Your task to perform on an android device: Go to eBay Image 0: 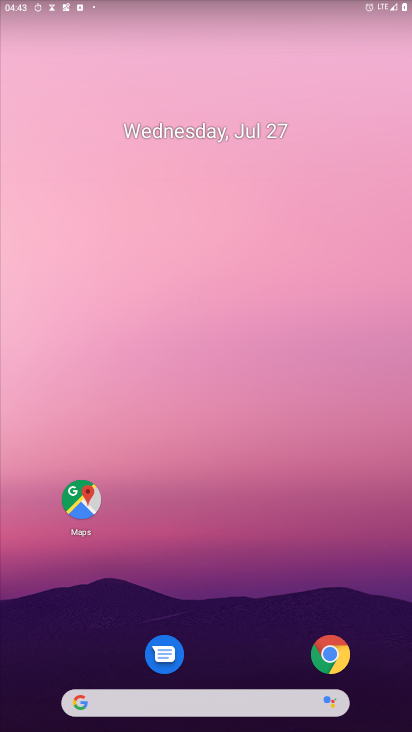
Step 0: drag from (176, 145) to (137, 0)
Your task to perform on an android device: Go to eBay Image 1: 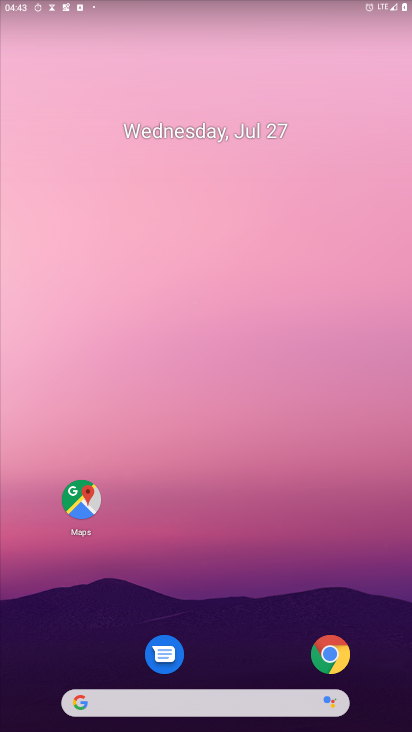
Step 1: drag from (191, 701) to (209, 87)
Your task to perform on an android device: Go to eBay Image 2: 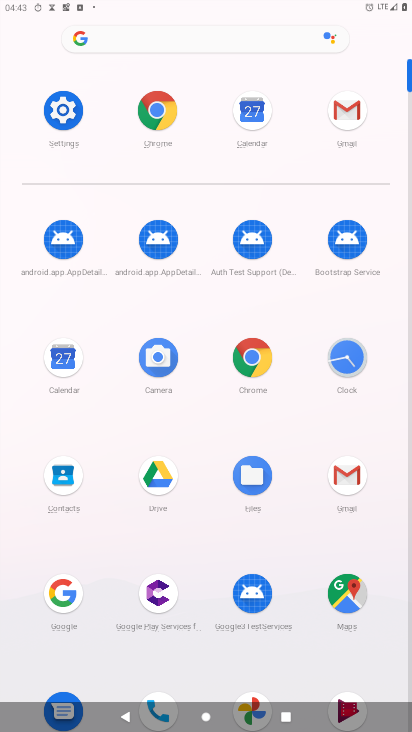
Step 2: click (255, 366)
Your task to perform on an android device: Go to eBay Image 3: 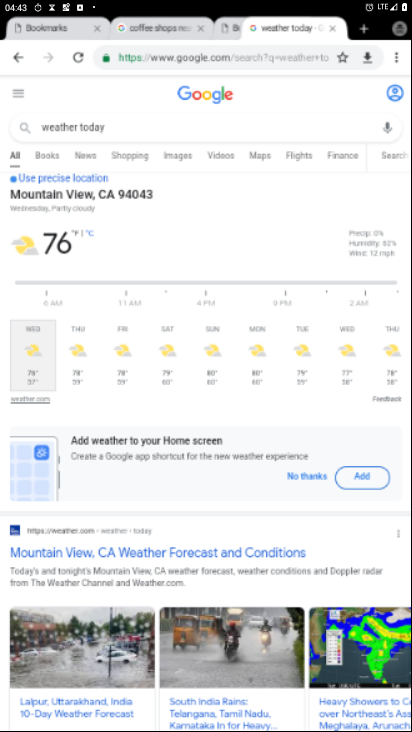
Step 3: click (179, 55)
Your task to perform on an android device: Go to eBay Image 4: 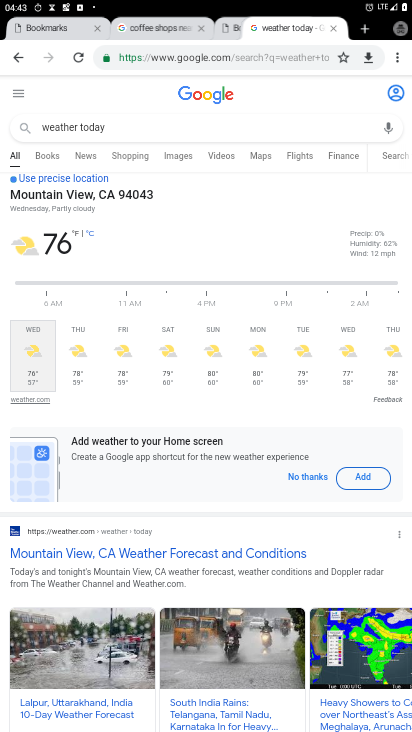
Step 4: click (179, 55)
Your task to perform on an android device: Go to eBay Image 5: 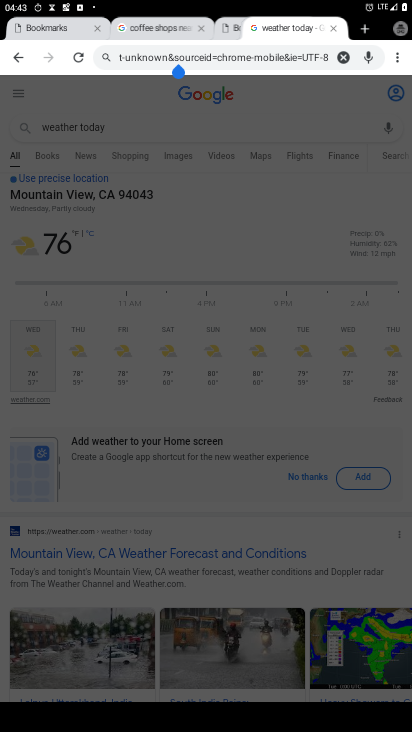
Step 5: type "ebay"
Your task to perform on an android device: Go to eBay Image 6: 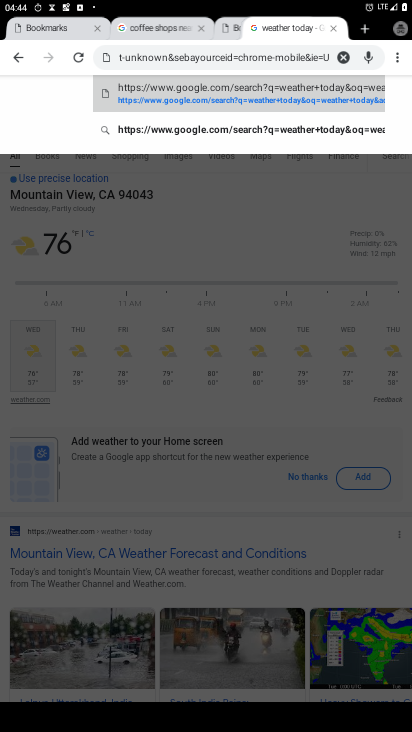
Step 6: click (343, 54)
Your task to perform on an android device: Go to eBay Image 7: 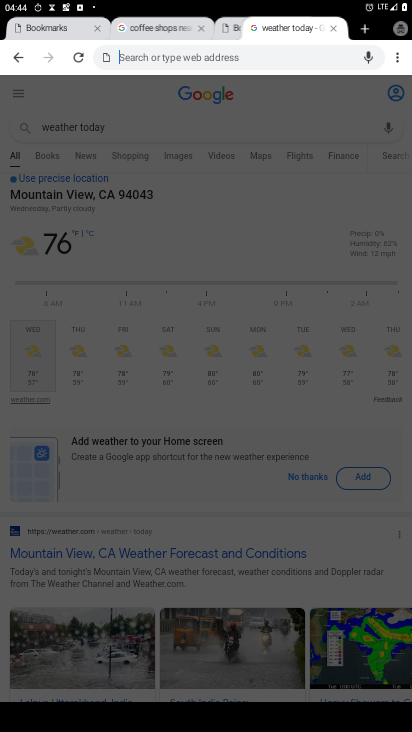
Step 7: type "ebay"
Your task to perform on an android device: Go to eBay Image 8: 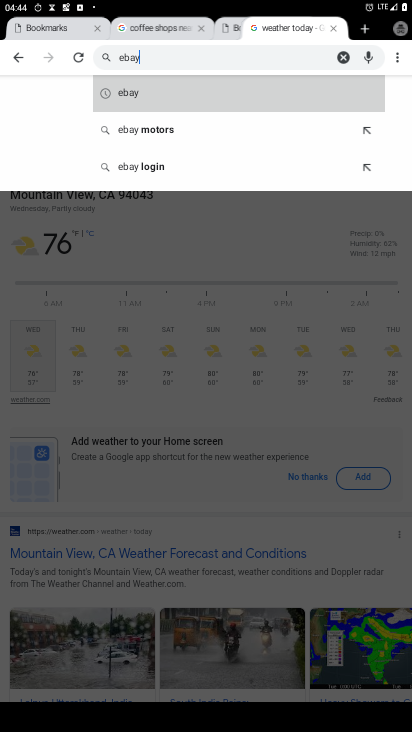
Step 8: click (193, 98)
Your task to perform on an android device: Go to eBay Image 9: 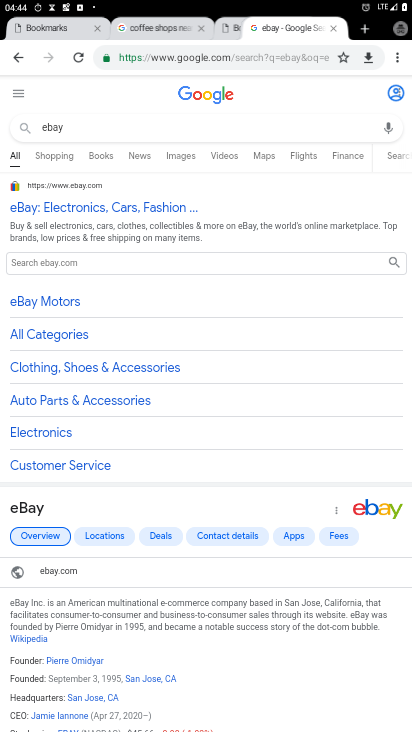
Step 9: task complete